Your task to perform on an android device: turn on sleep mode Image 0: 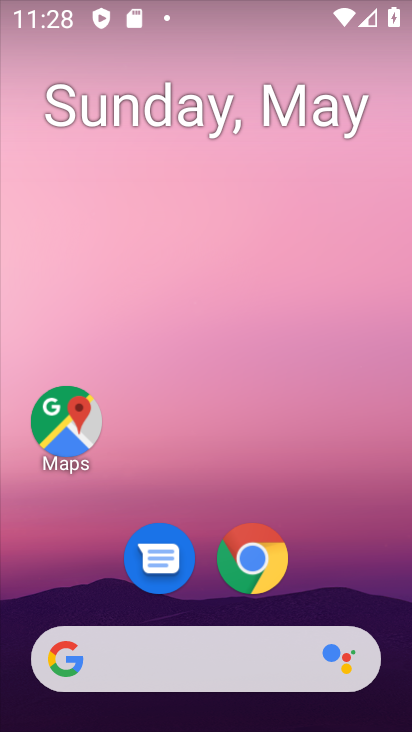
Step 0: drag from (355, 544) to (385, 121)
Your task to perform on an android device: turn on sleep mode Image 1: 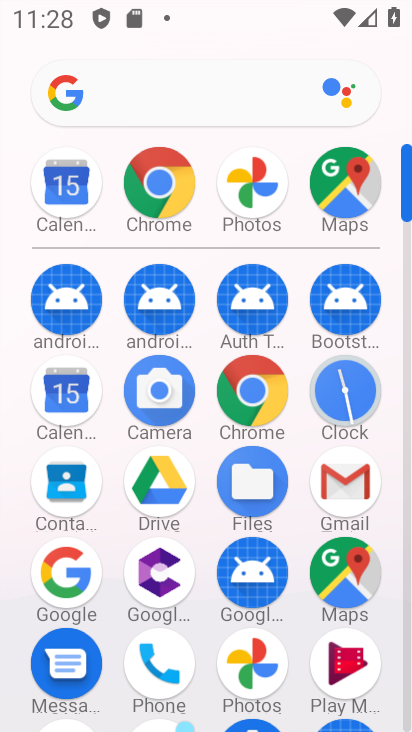
Step 1: drag from (187, 620) to (211, 361)
Your task to perform on an android device: turn on sleep mode Image 2: 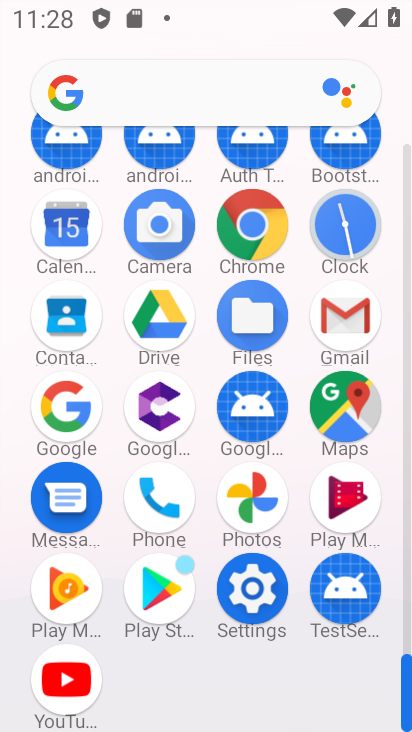
Step 2: click (253, 587)
Your task to perform on an android device: turn on sleep mode Image 3: 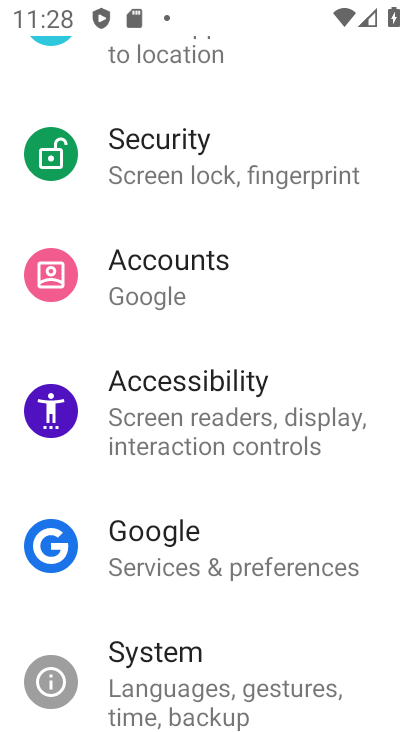
Step 3: drag from (361, 654) to (376, 461)
Your task to perform on an android device: turn on sleep mode Image 4: 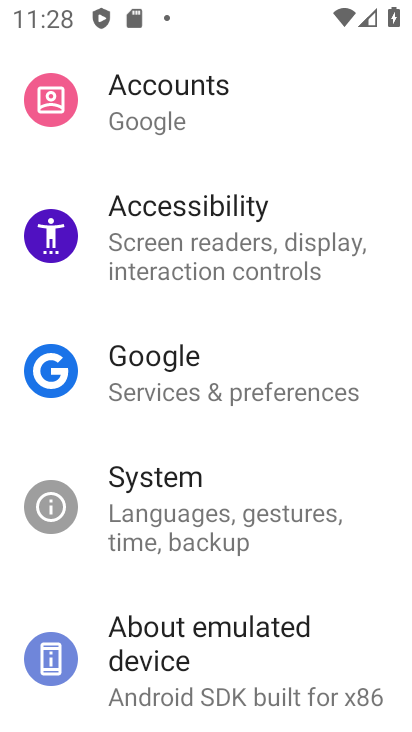
Step 4: drag from (383, 169) to (345, 548)
Your task to perform on an android device: turn on sleep mode Image 5: 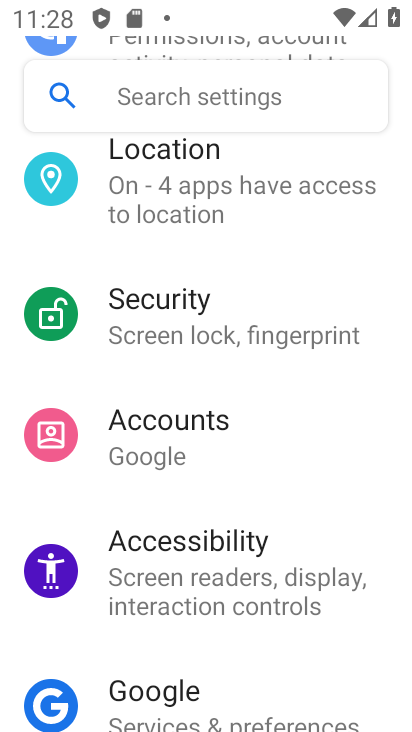
Step 5: drag from (360, 224) to (351, 530)
Your task to perform on an android device: turn on sleep mode Image 6: 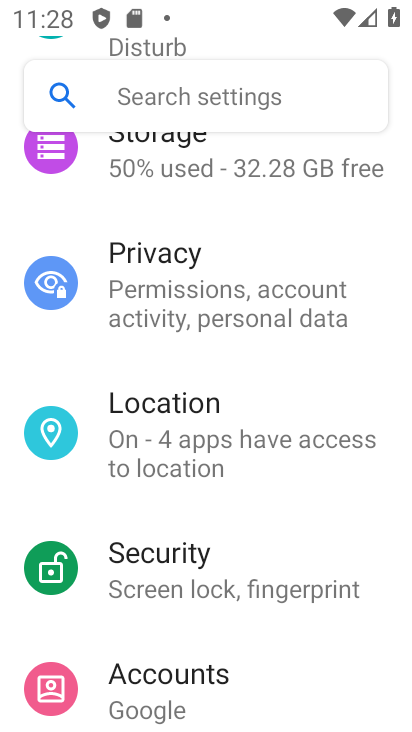
Step 6: drag from (355, 231) to (339, 522)
Your task to perform on an android device: turn on sleep mode Image 7: 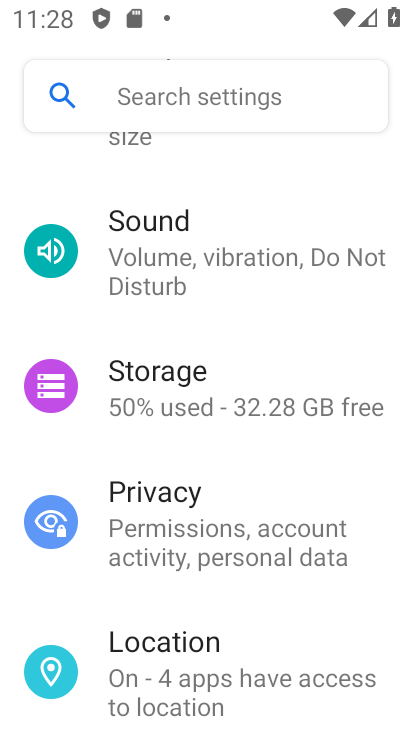
Step 7: drag from (301, 170) to (298, 484)
Your task to perform on an android device: turn on sleep mode Image 8: 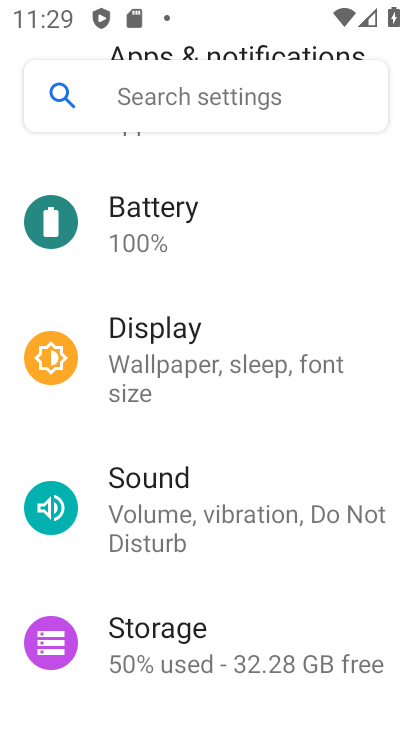
Step 8: click (240, 356)
Your task to perform on an android device: turn on sleep mode Image 9: 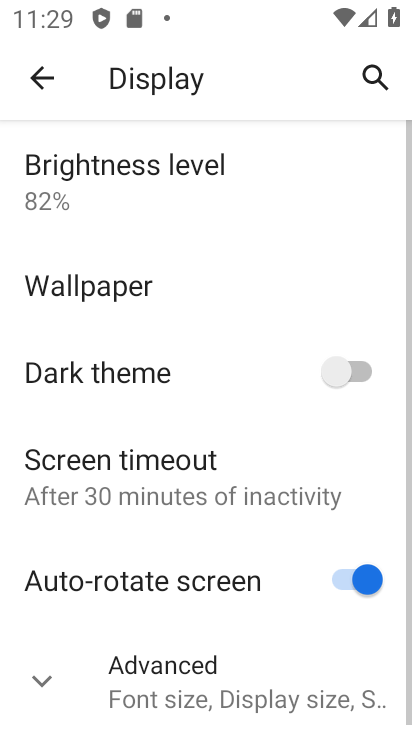
Step 9: click (202, 691)
Your task to perform on an android device: turn on sleep mode Image 10: 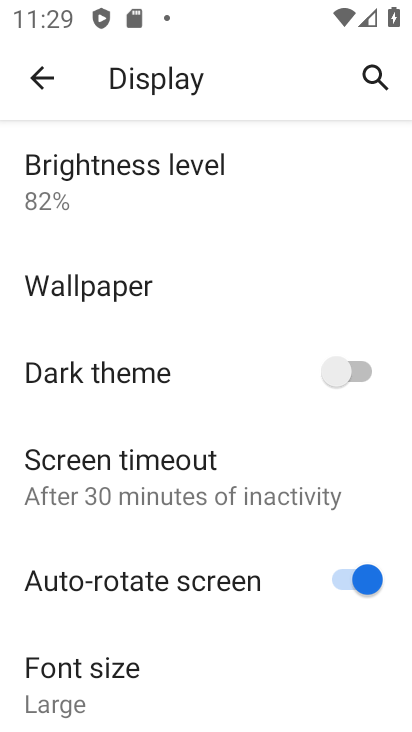
Step 10: task complete